Your task to perform on an android device: open app "Skype" Image 0: 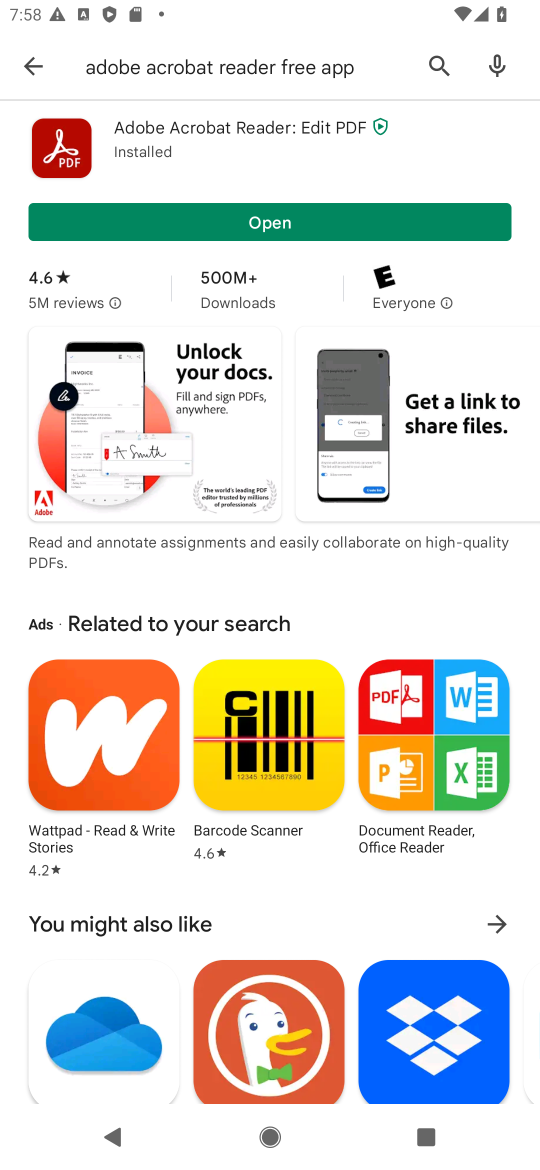
Step 0: click (262, 63)
Your task to perform on an android device: open app "Skype" Image 1: 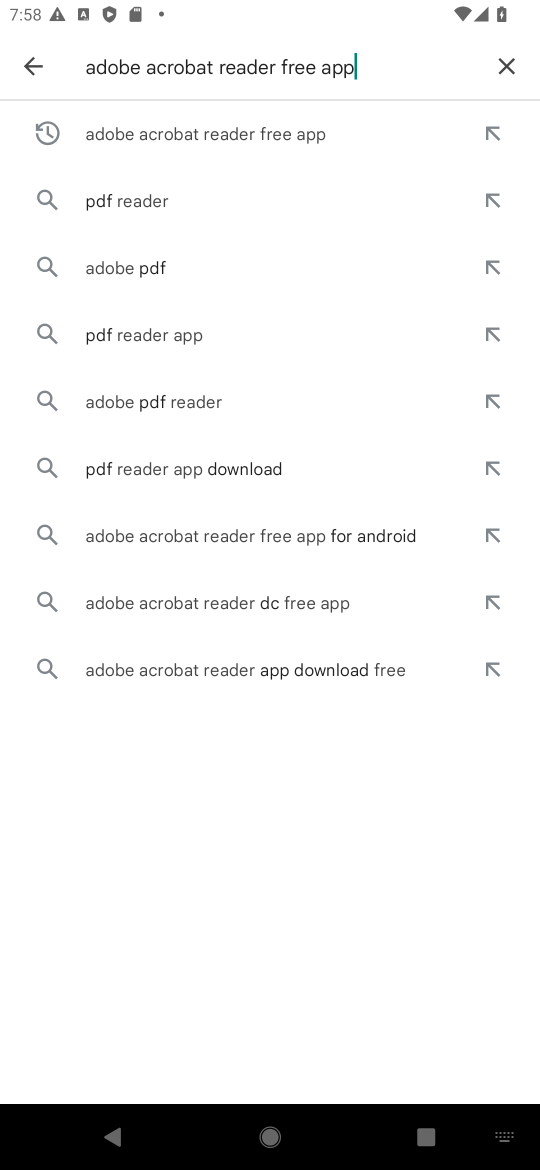
Step 1: click (510, 62)
Your task to perform on an android device: open app "Skype" Image 2: 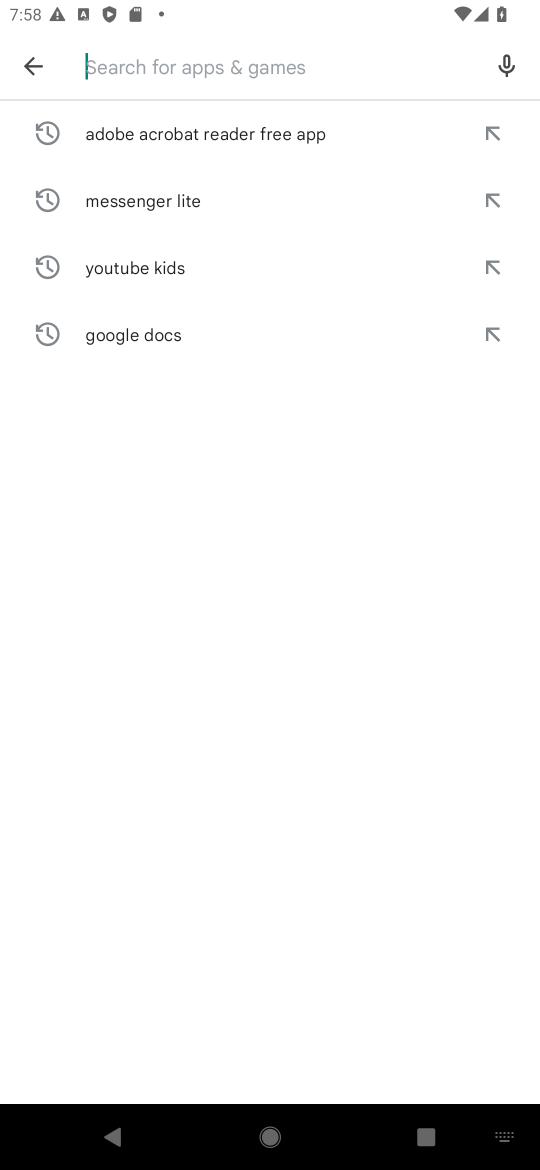
Step 2: type "skype"
Your task to perform on an android device: open app "Skype" Image 3: 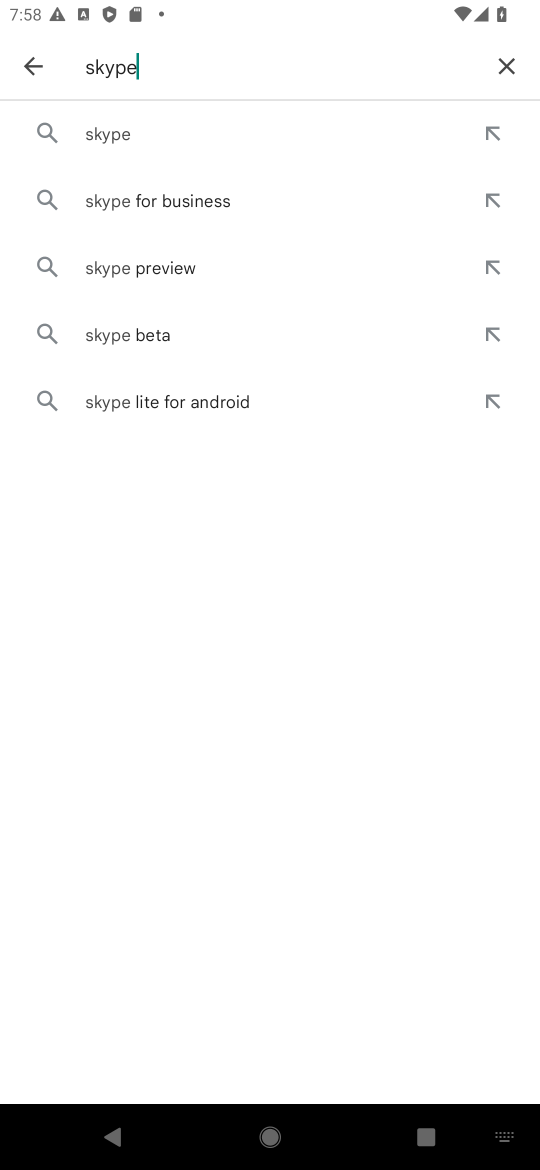
Step 3: click (172, 127)
Your task to perform on an android device: open app "Skype" Image 4: 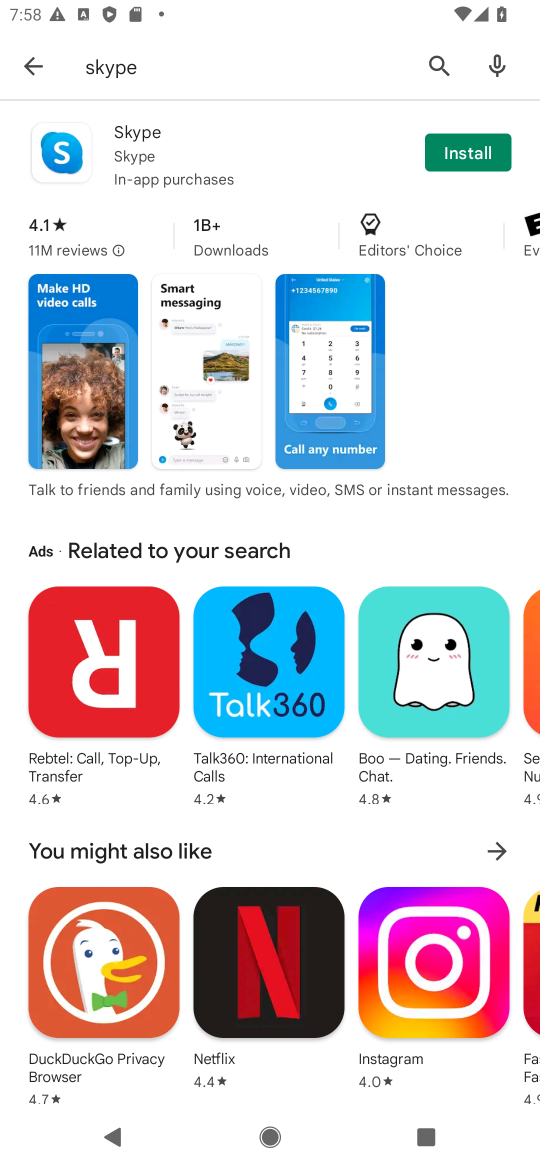
Step 4: task complete